Your task to perform on an android device: Search for "The Dispatcher" by John Scalzi on Goodreads Image 0: 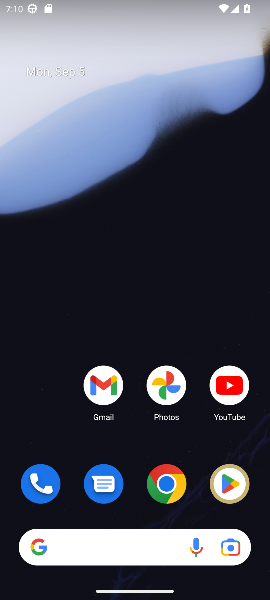
Step 0: drag from (123, 459) to (136, 68)
Your task to perform on an android device: Search for "The Dispatcher" by John Scalzi on Goodreads Image 1: 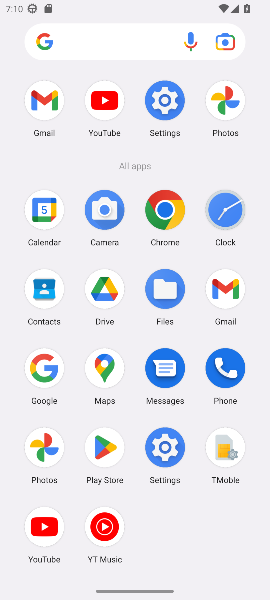
Step 1: click (168, 210)
Your task to perform on an android device: Search for "The Dispatcher" by John Scalzi on Goodreads Image 2: 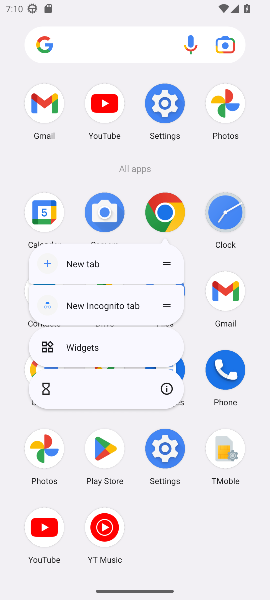
Step 2: click (164, 208)
Your task to perform on an android device: Search for "The Dispatcher" by John Scalzi on Goodreads Image 3: 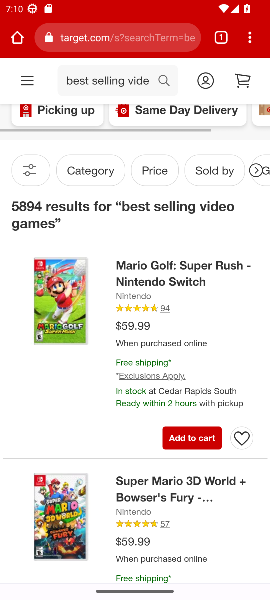
Step 3: click (111, 40)
Your task to perform on an android device: Search for "The Dispatcher" by John Scalzi on Goodreads Image 4: 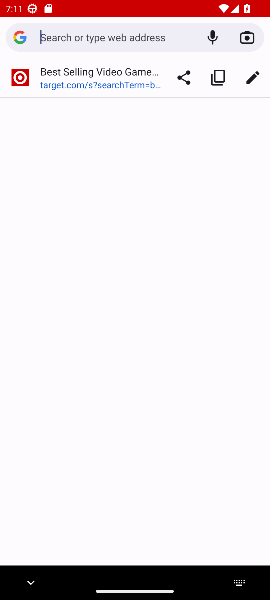
Step 4: type "Goodreads"
Your task to perform on an android device: Search for "The Dispatcher" by John Scalzi on Goodreads Image 5: 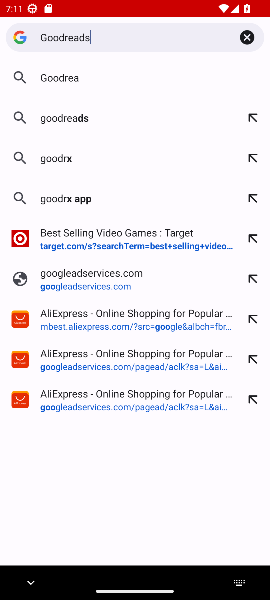
Step 5: press enter
Your task to perform on an android device: Search for "The Dispatcher" by John Scalzi on Goodreads Image 6: 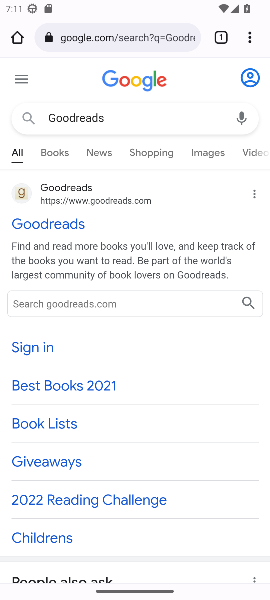
Step 6: click (25, 228)
Your task to perform on an android device: Search for "The Dispatcher" by John Scalzi on Goodreads Image 7: 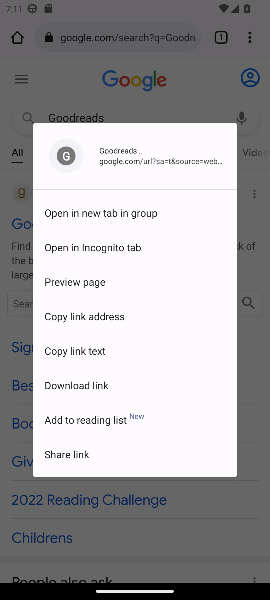
Step 7: click (24, 216)
Your task to perform on an android device: Search for "The Dispatcher" by John Scalzi on Goodreads Image 8: 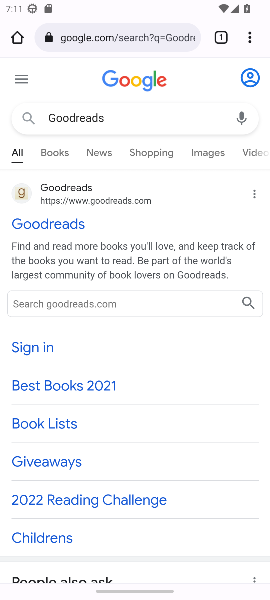
Step 8: click (24, 217)
Your task to perform on an android device: Search for "The Dispatcher" by John Scalzi on Goodreads Image 9: 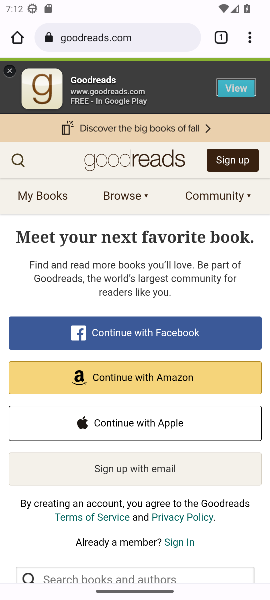
Step 9: click (91, 152)
Your task to perform on an android device: Search for "The Dispatcher" by John Scalzi on Goodreads Image 10: 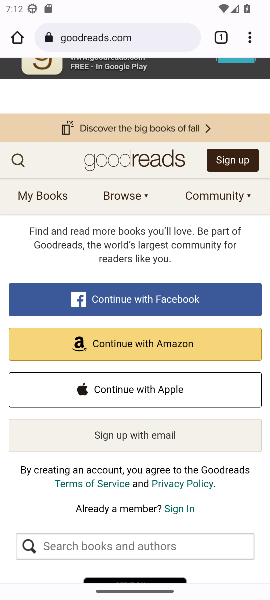
Step 10: click (55, 161)
Your task to perform on an android device: Search for "The Dispatcher" by John Scalzi on Goodreads Image 11: 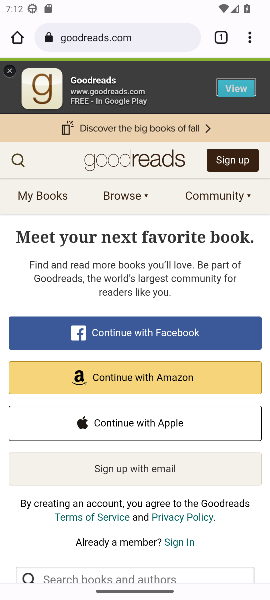
Step 11: click (22, 161)
Your task to perform on an android device: Search for "The Dispatcher" by John Scalzi on Goodreads Image 12: 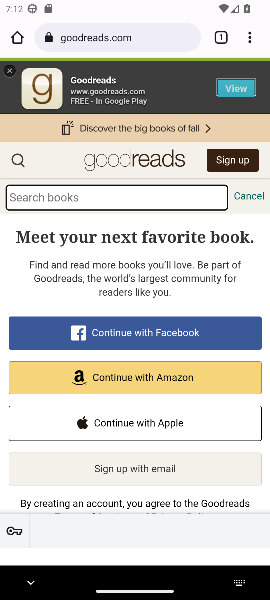
Step 12: type "The Dispatcher" by John Scalz"
Your task to perform on an android device: Search for "The Dispatcher" by John Scalzi on Goodreads Image 13: 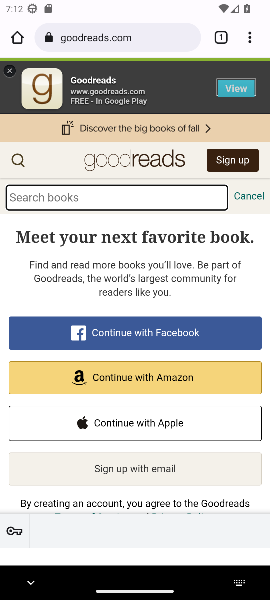
Step 13: press enter
Your task to perform on an android device: Search for "The Dispatcher" by John Scalzi on Goodreads Image 14: 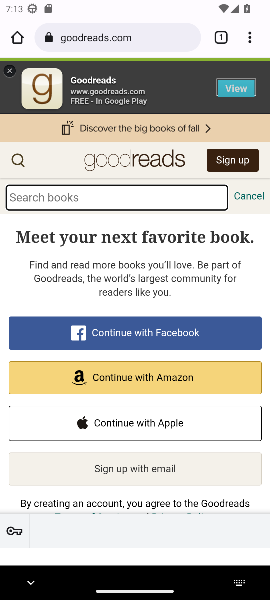
Step 14: type "The Dispatcher"
Your task to perform on an android device: Search for "The Dispatcher" by John Scalzi on Goodreads Image 15: 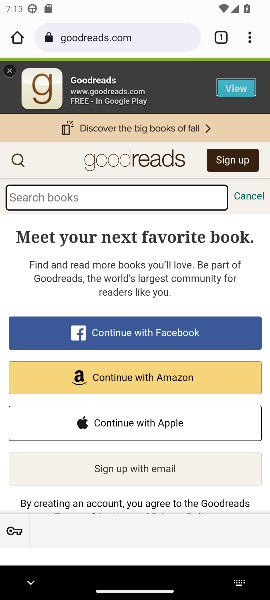
Step 15: press enter
Your task to perform on an android device: Search for "The Dispatcher" by John Scalzi on Goodreads Image 16: 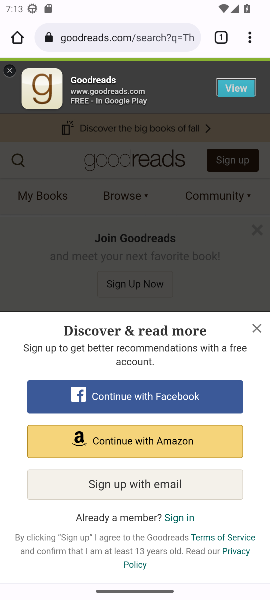
Step 16: click (191, 415)
Your task to perform on an android device: Search for "The Dispatcher" by John Scalzi on Goodreads Image 17: 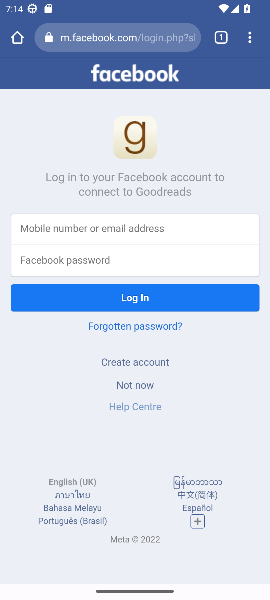
Step 17: task complete